Your task to perform on an android device: Go to Yahoo.com Image 0: 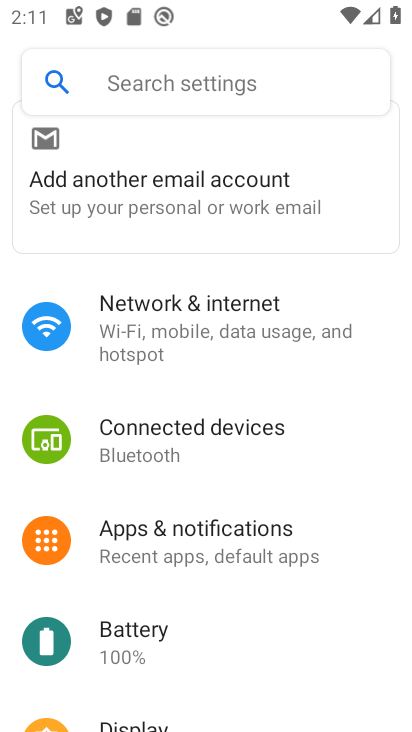
Step 0: press home button
Your task to perform on an android device: Go to Yahoo.com Image 1: 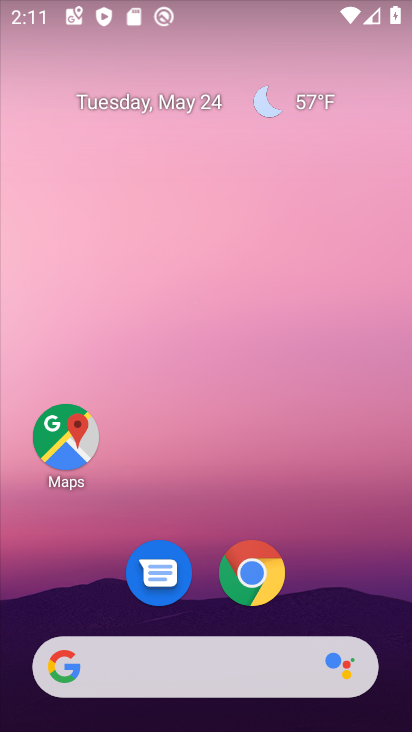
Step 1: drag from (329, 597) to (311, 504)
Your task to perform on an android device: Go to Yahoo.com Image 2: 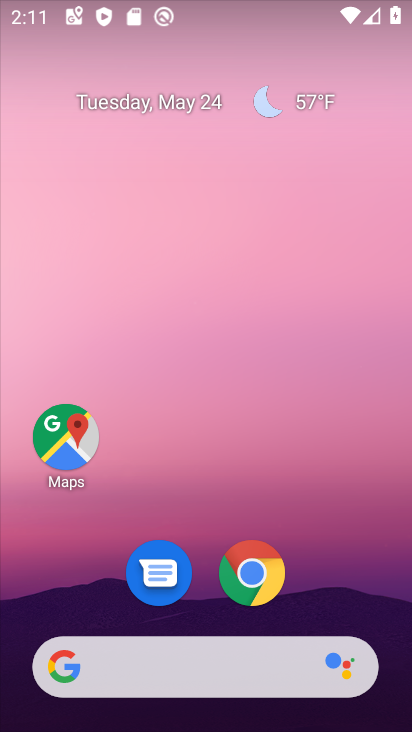
Step 2: click (256, 566)
Your task to perform on an android device: Go to Yahoo.com Image 3: 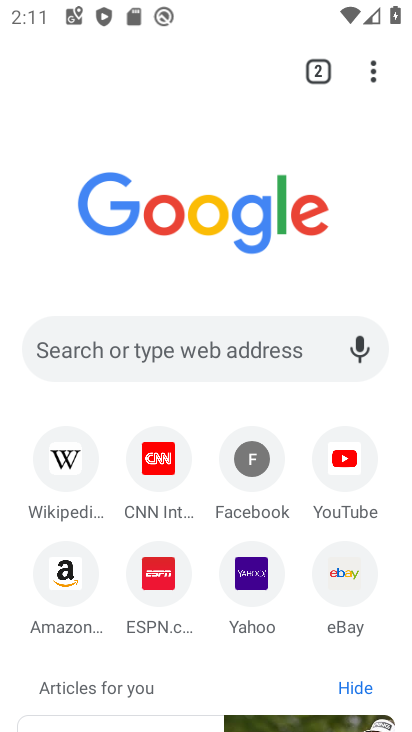
Step 3: click (241, 574)
Your task to perform on an android device: Go to Yahoo.com Image 4: 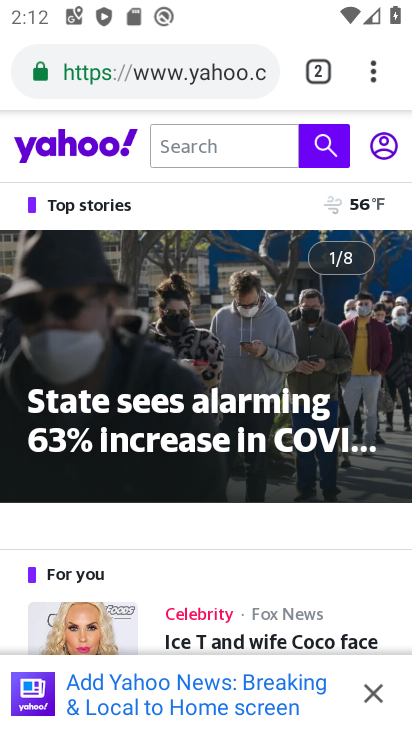
Step 4: task complete